Your task to perform on an android device: turn pop-ups off in chrome Image 0: 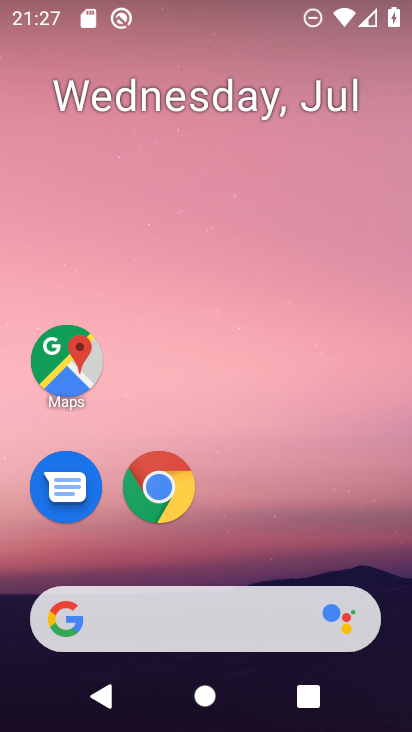
Step 0: drag from (355, 534) to (361, 67)
Your task to perform on an android device: turn pop-ups off in chrome Image 1: 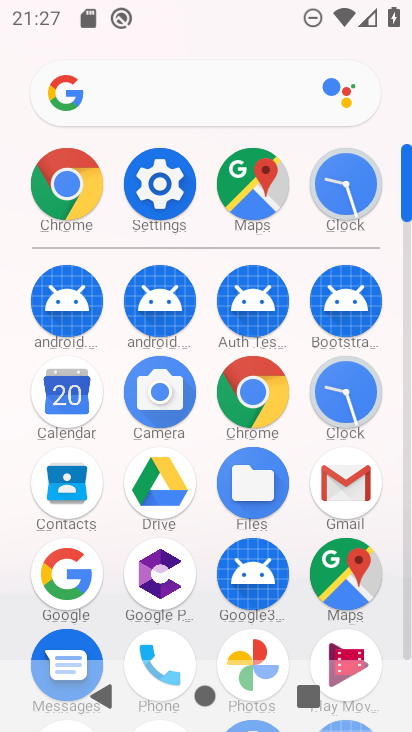
Step 1: click (268, 391)
Your task to perform on an android device: turn pop-ups off in chrome Image 2: 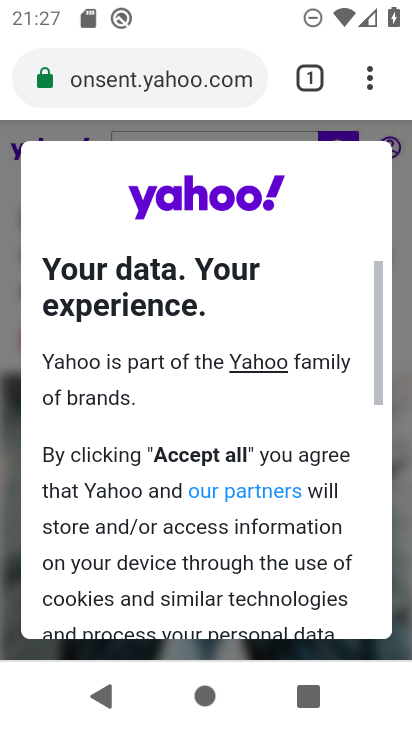
Step 2: click (371, 82)
Your task to perform on an android device: turn pop-ups off in chrome Image 3: 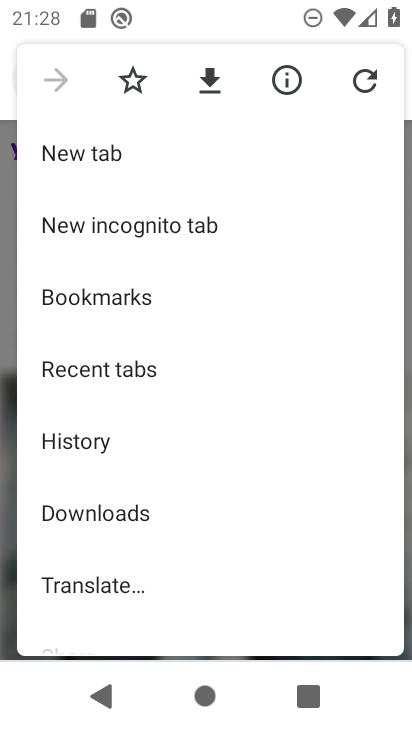
Step 3: drag from (305, 426) to (323, 304)
Your task to perform on an android device: turn pop-ups off in chrome Image 4: 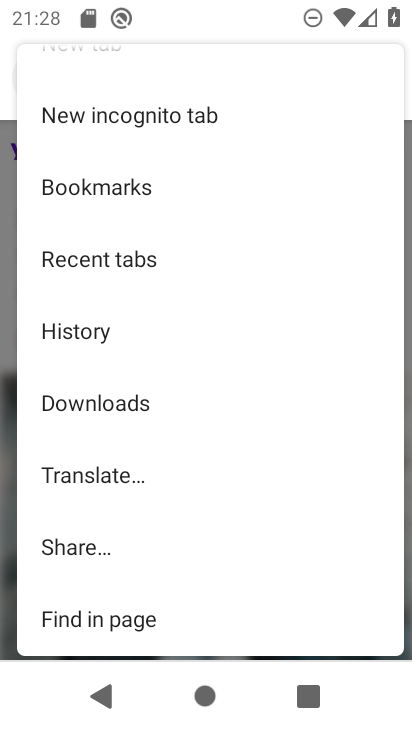
Step 4: drag from (318, 414) to (320, 314)
Your task to perform on an android device: turn pop-ups off in chrome Image 5: 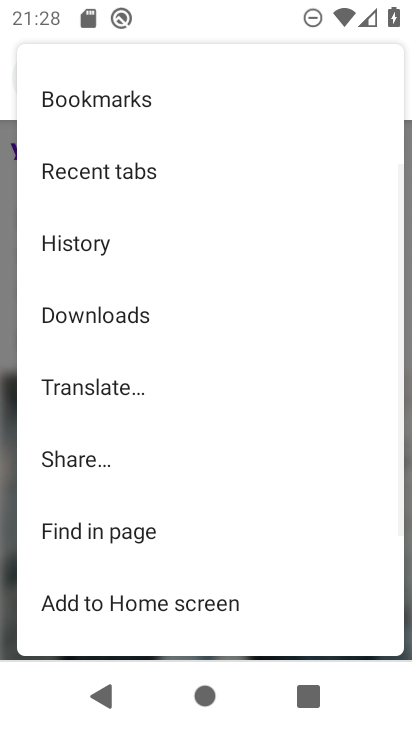
Step 5: drag from (324, 441) to (326, 326)
Your task to perform on an android device: turn pop-ups off in chrome Image 6: 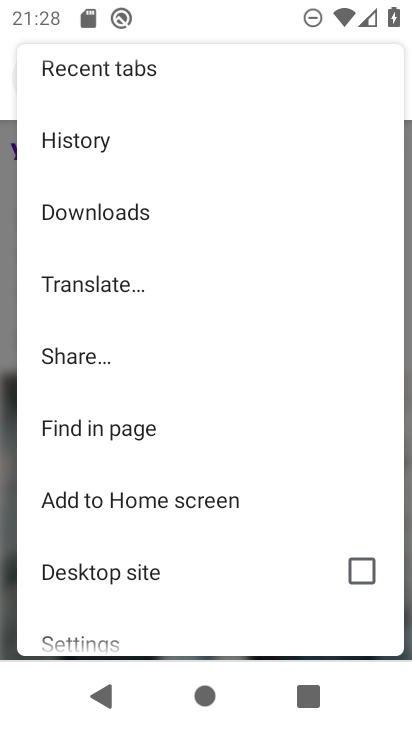
Step 6: drag from (313, 471) to (318, 344)
Your task to perform on an android device: turn pop-ups off in chrome Image 7: 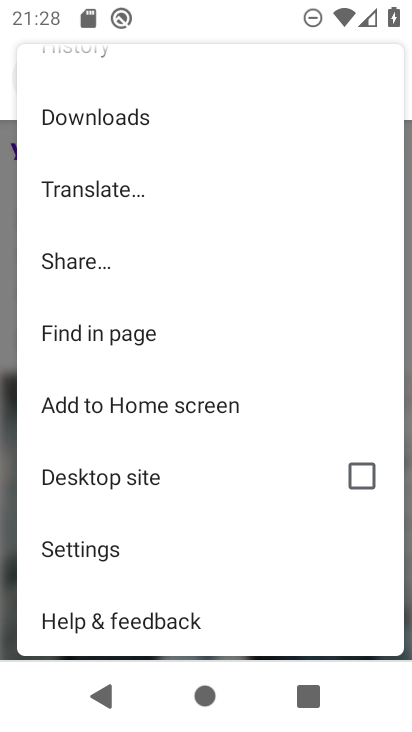
Step 7: click (281, 544)
Your task to perform on an android device: turn pop-ups off in chrome Image 8: 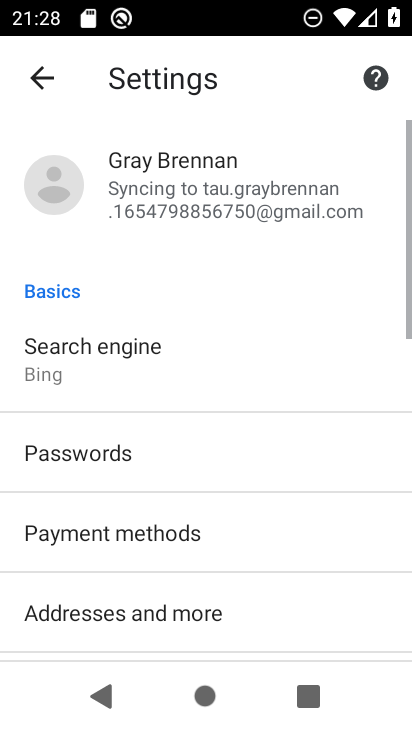
Step 8: drag from (311, 514) to (334, 409)
Your task to perform on an android device: turn pop-ups off in chrome Image 9: 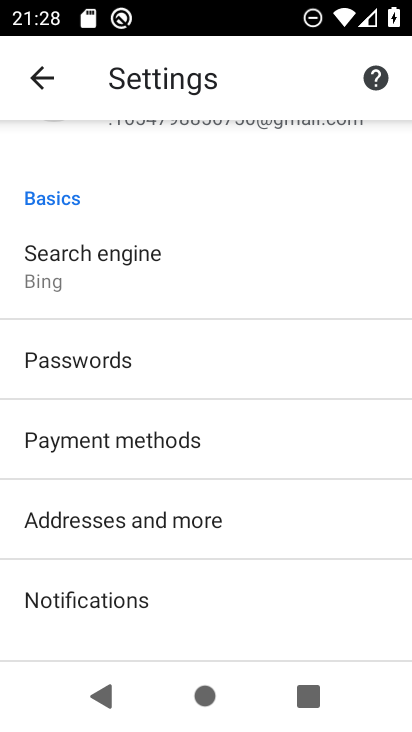
Step 9: drag from (337, 512) to (348, 422)
Your task to perform on an android device: turn pop-ups off in chrome Image 10: 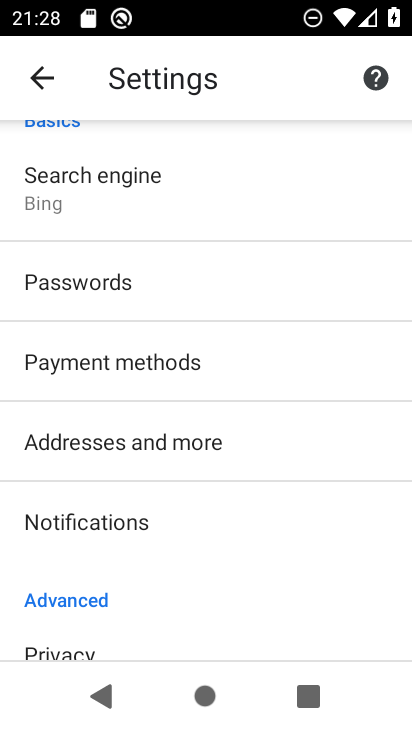
Step 10: drag from (323, 573) to (338, 463)
Your task to perform on an android device: turn pop-ups off in chrome Image 11: 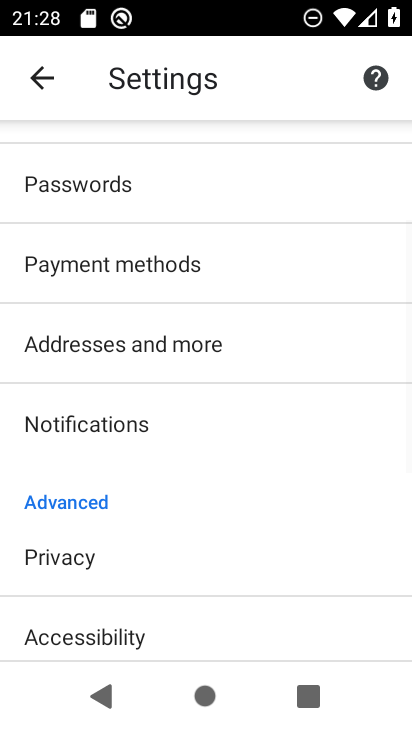
Step 11: drag from (325, 583) to (325, 438)
Your task to perform on an android device: turn pop-ups off in chrome Image 12: 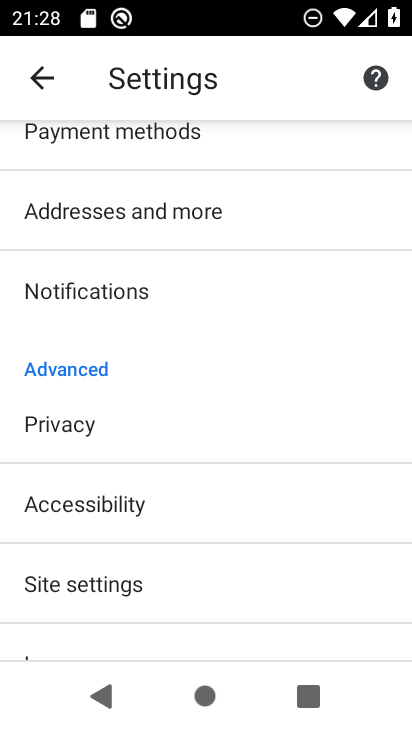
Step 12: click (327, 574)
Your task to perform on an android device: turn pop-ups off in chrome Image 13: 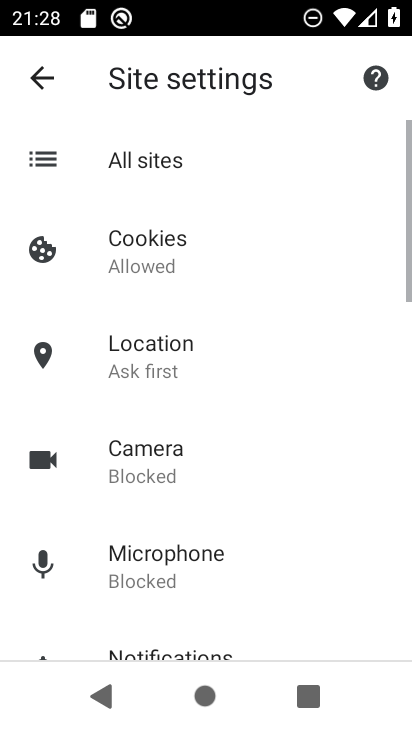
Step 13: drag from (327, 574) to (341, 484)
Your task to perform on an android device: turn pop-ups off in chrome Image 14: 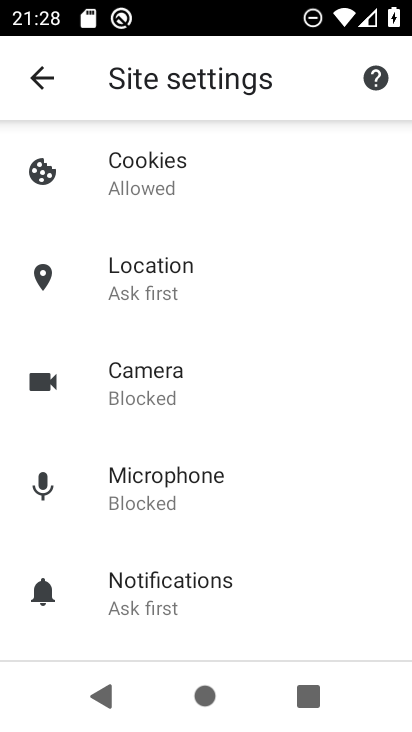
Step 14: drag from (341, 581) to (348, 469)
Your task to perform on an android device: turn pop-ups off in chrome Image 15: 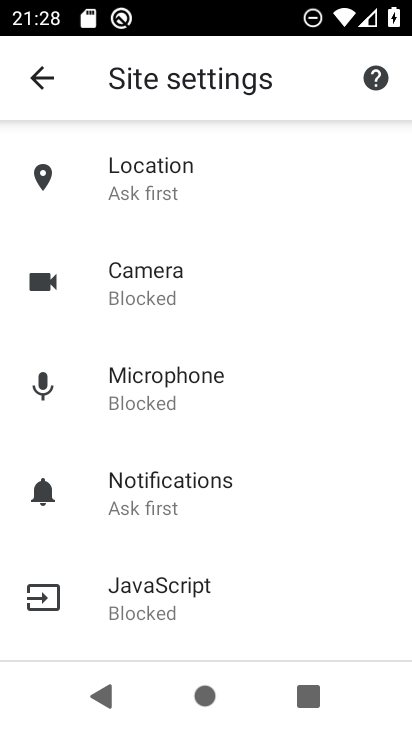
Step 15: drag from (349, 591) to (356, 453)
Your task to perform on an android device: turn pop-ups off in chrome Image 16: 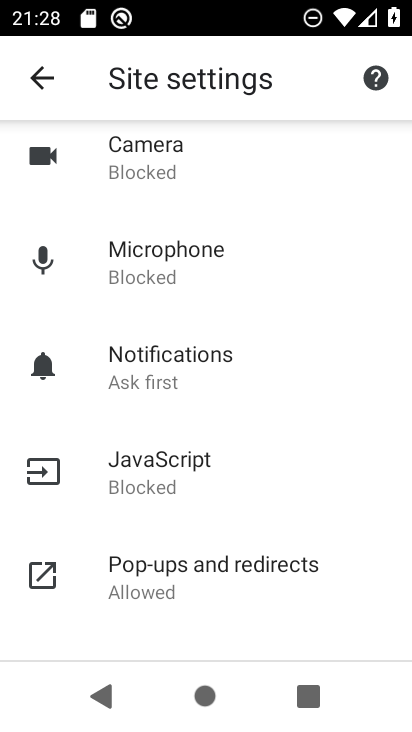
Step 16: drag from (349, 475) to (341, 345)
Your task to perform on an android device: turn pop-ups off in chrome Image 17: 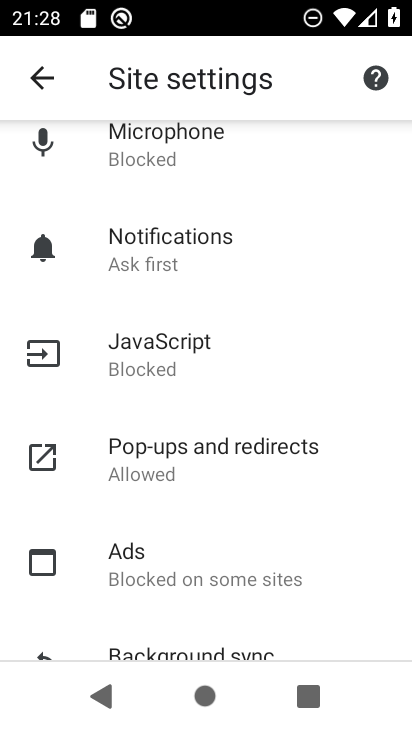
Step 17: drag from (372, 482) to (374, 349)
Your task to perform on an android device: turn pop-ups off in chrome Image 18: 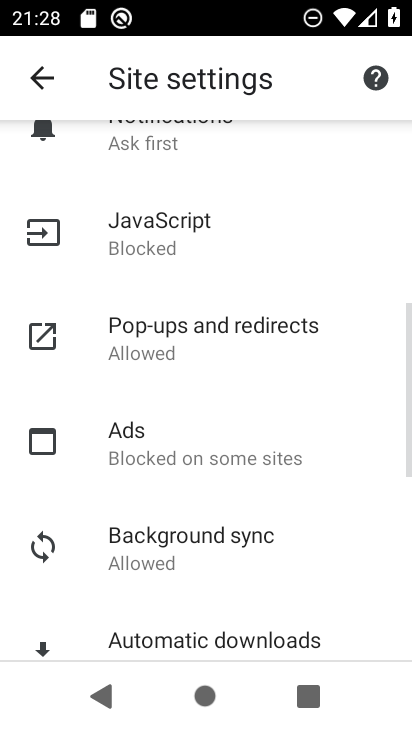
Step 18: click (357, 347)
Your task to perform on an android device: turn pop-ups off in chrome Image 19: 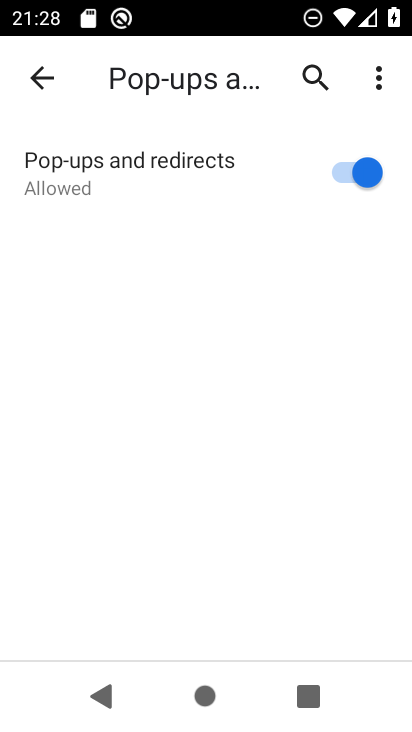
Step 19: click (370, 155)
Your task to perform on an android device: turn pop-ups off in chrome Image 20: 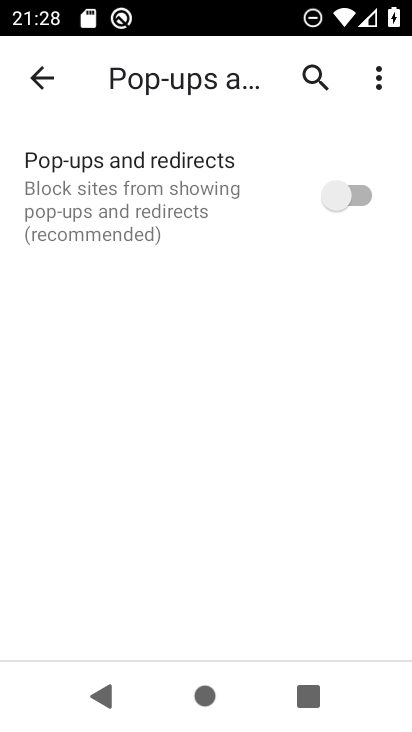
Step 20: task complete